Your task to perform on an android device: delete location history Image 0: 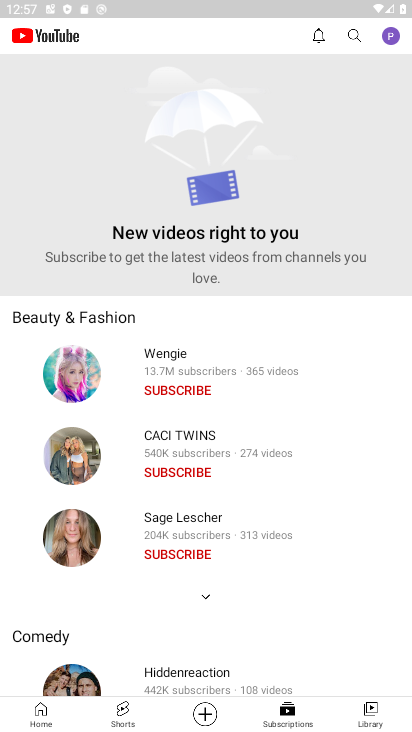
Step 0: press home button
Your task to perform on an android device: delete location history Image 1: 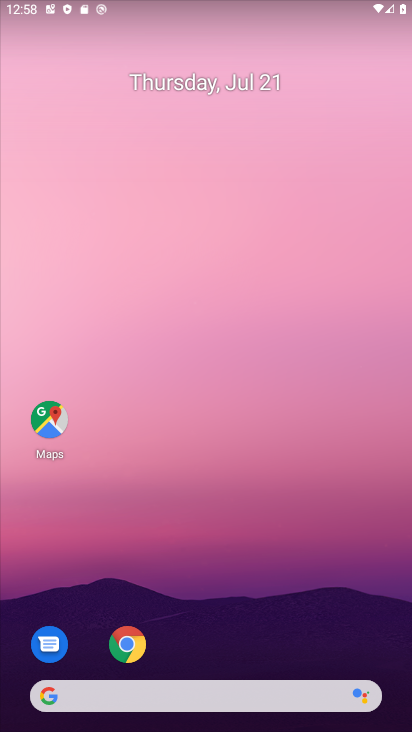
Step 1: drag from (216, 642) to (266, 19)
Your task to perform on an android device: delete location history Image 2: 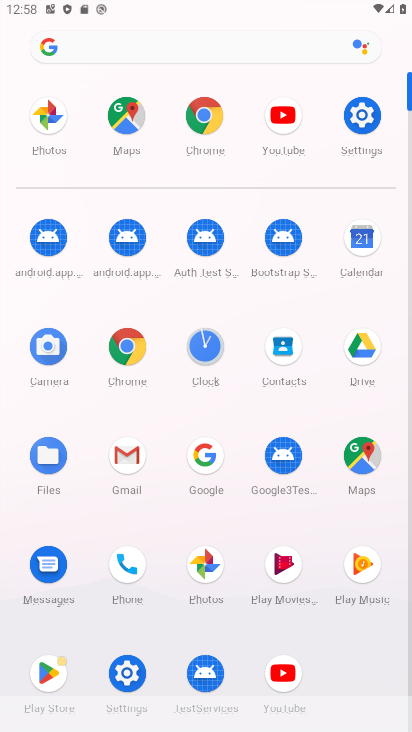
Step 2: click (371, 470)
Your task to perform on an android device: delete location history Image 3: 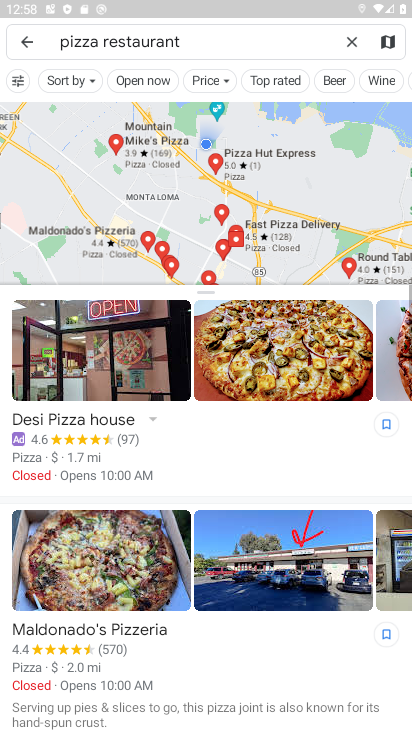
Step 3: click (26, 37)
Your task to perform on an android device: delete location history Image 4: 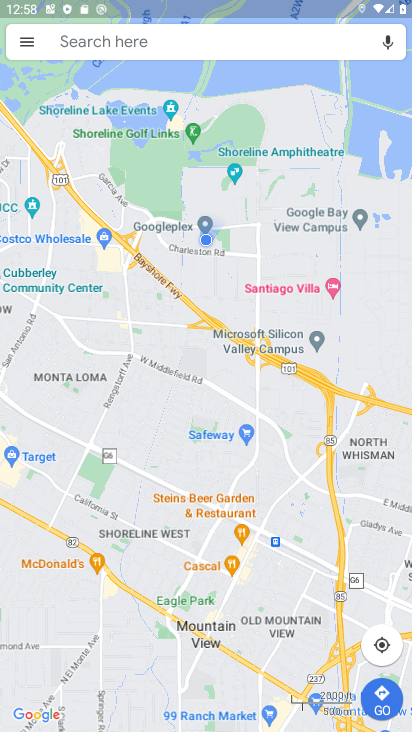
Step 4: click (28, 40)
Your task to perform on an android device: delete location history Image 5: 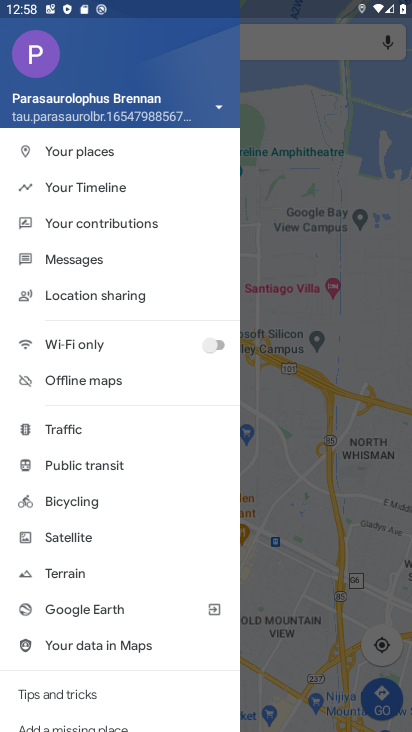
Step 5: drag from (56, 697) to (57, 629)
Your task to perform on an android device: delete location history Image 6: 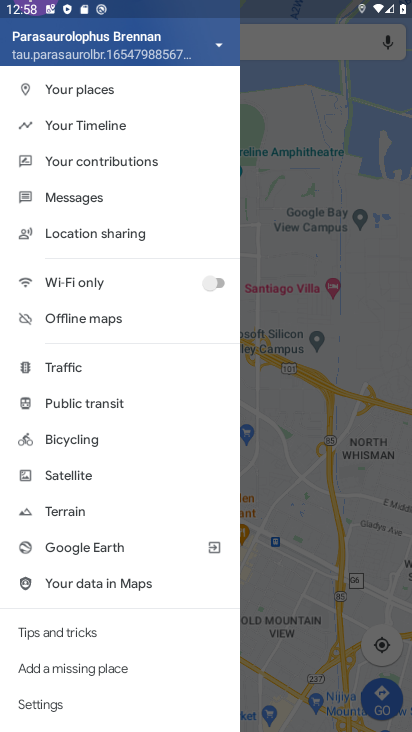
Step 6: click (33, 127)
Your task to perform on an android device: delete location history Image 7: 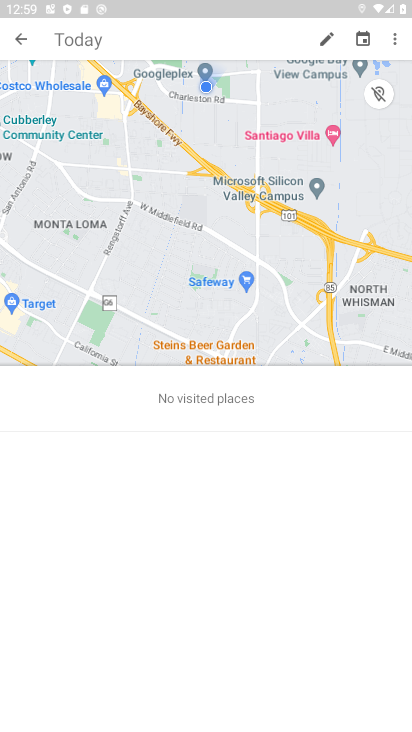
Step 7: click (393, 46)
Your task to perform on an android device: delete location history Image 8: 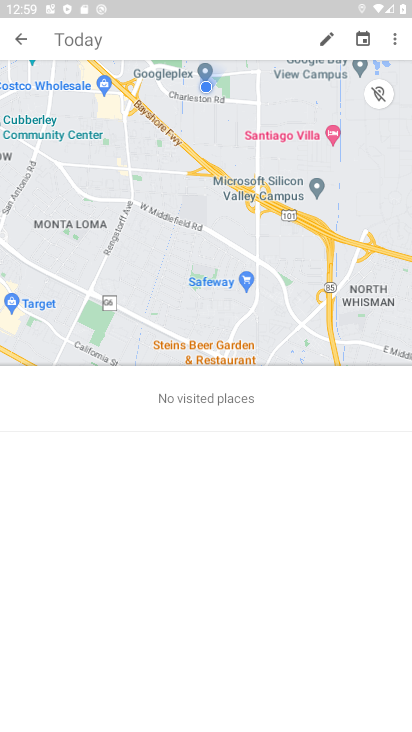
Step 8: click (405, 29)
Your task to perform on an android device: delete location history Image 9: 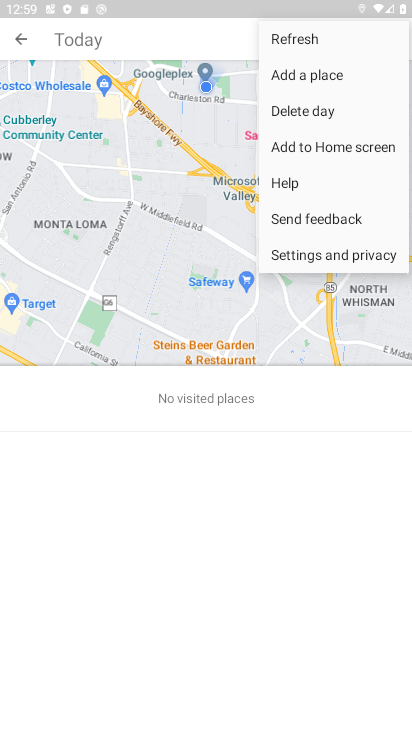
Step 9: click (367, 254)
Your task to perform on an android device: delete location history Image 10: 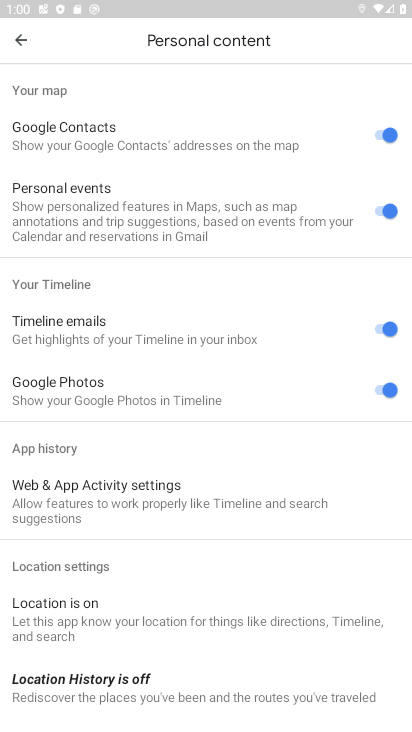
Step 10: click (96, 687)
Your task to perform on an android device: delete location history Image 11: 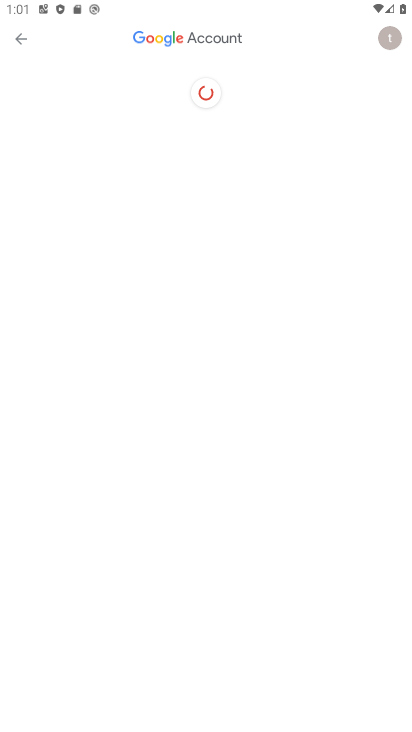
Step 11: click (19, 48)
Your task to perform on an android device: delete location history Image 12: 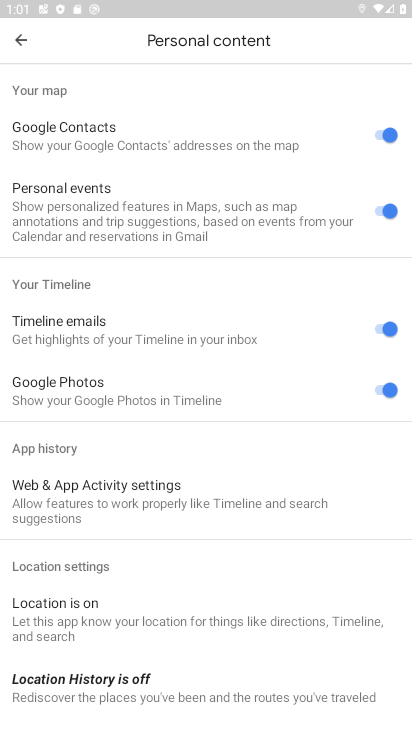
Step 12: drag from (133, 563) to (145, 316)
Your task to perform on an android device: delete location history Image 13: 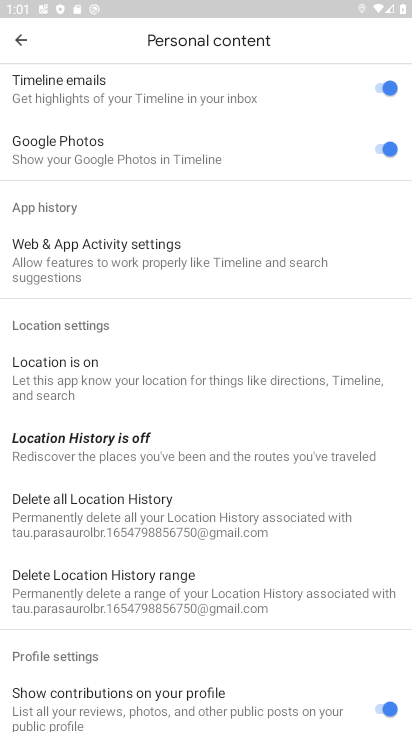
Step 13: click (76, 519)
Your task to perform on an android device: delete location history Image 14: 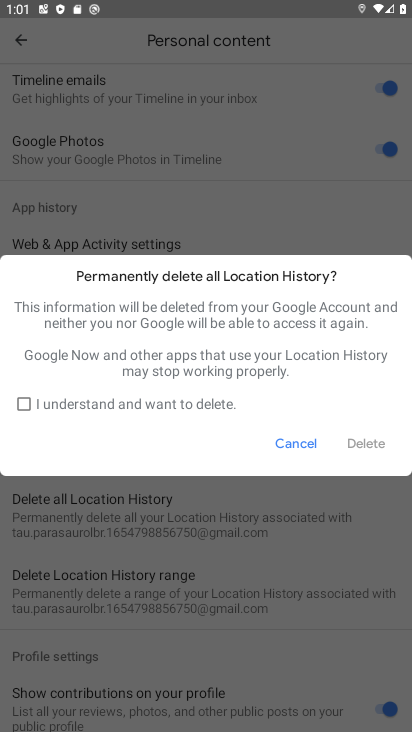
Step 14: click (30, 413)
Your task to perform on an android device: delete location history Image 15: 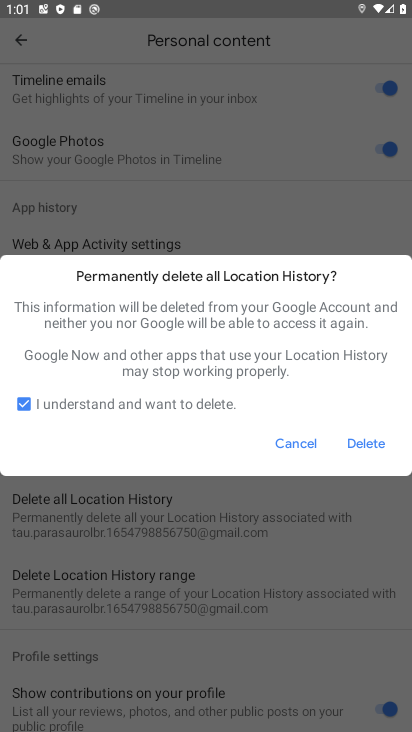
Step 15: click (388, 428)
Your task to perform on an android device: delete location history Image 16: 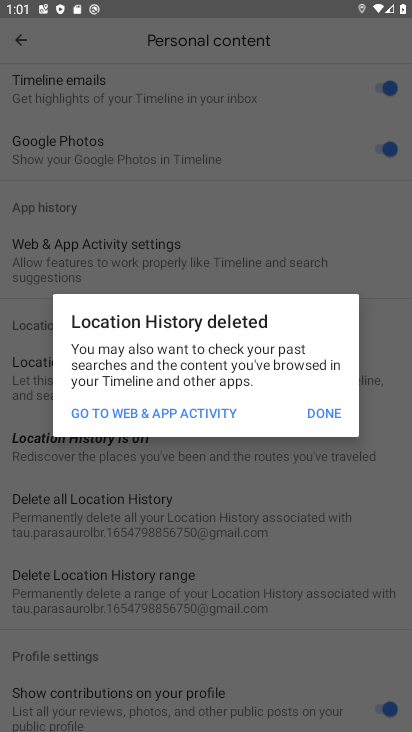
Step 16: click (313, 403)
Your task to perform on an android device: delete location history Image 17: 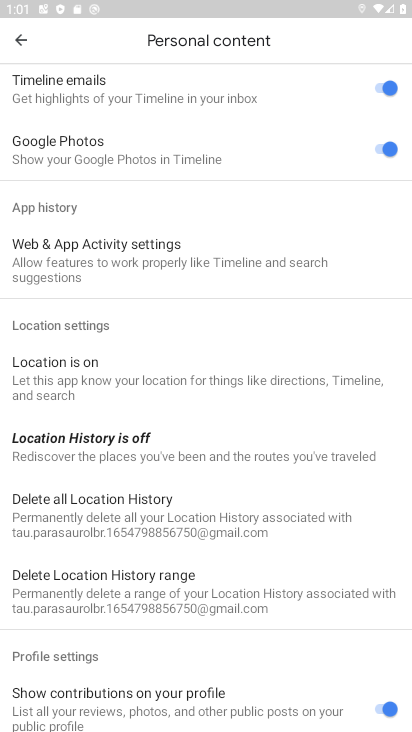
Step 17: task complete